Your task to perform on an android device: open app "Google Play services" Image 0: 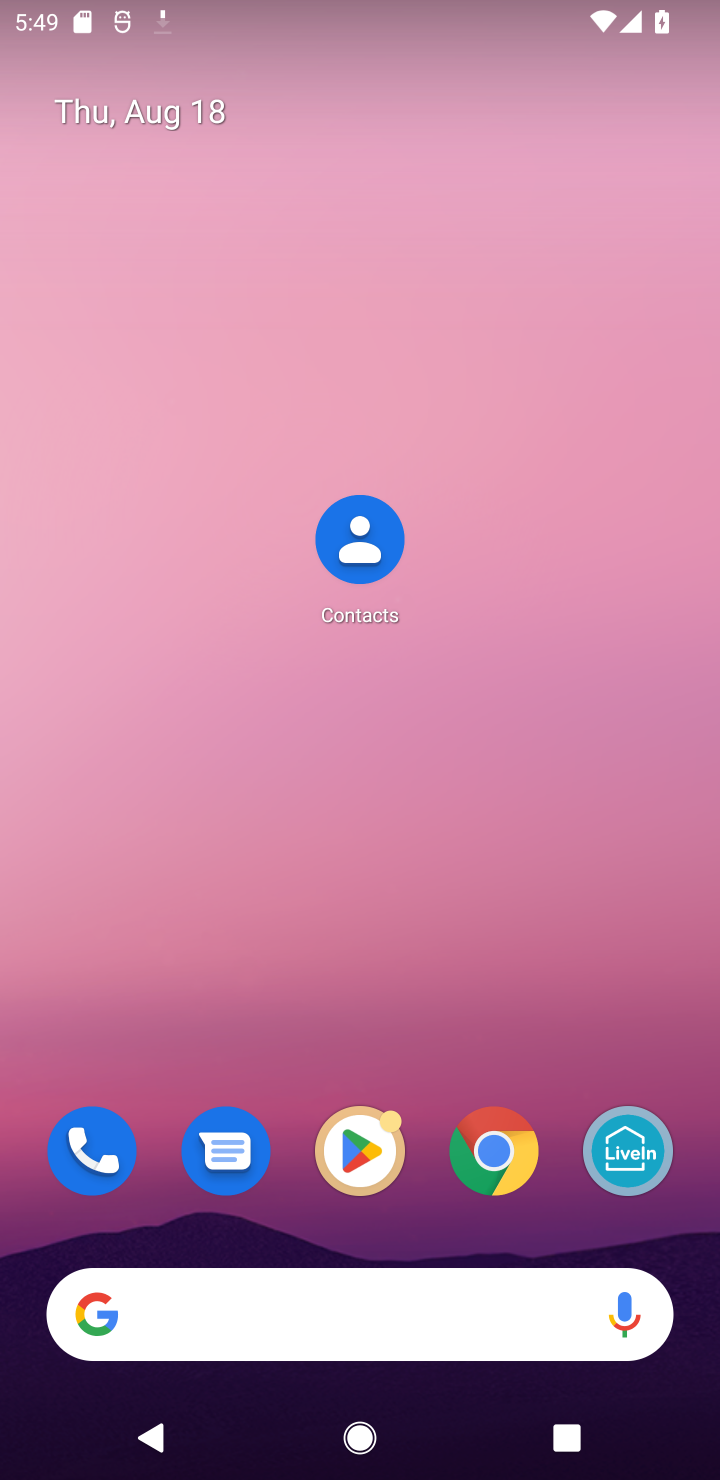
Step 0: click (373, 1170)
Your task to perform on an android device: open app "Google Play services" Image 1: 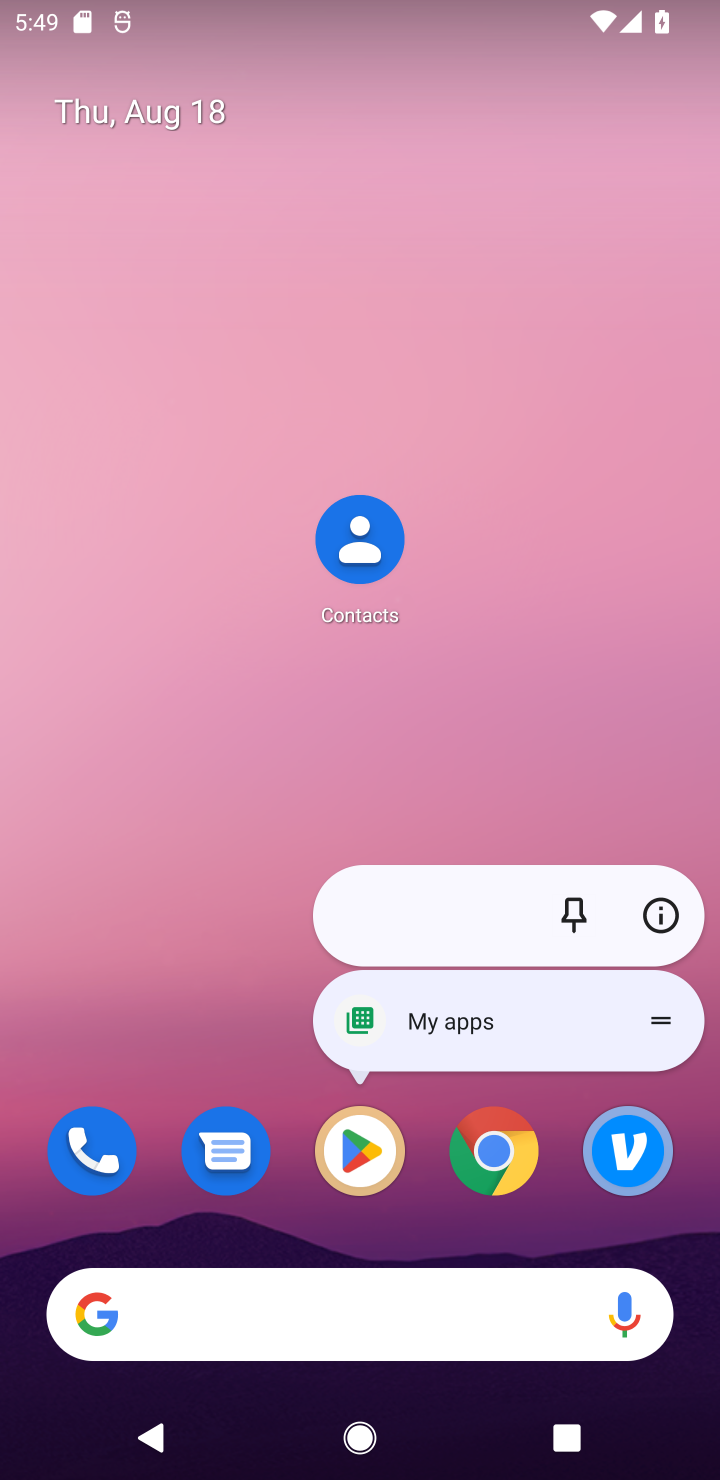
Step 1: click (342, 1180)
Your task to perform on an android device: open app "Google Play services" Image 2: 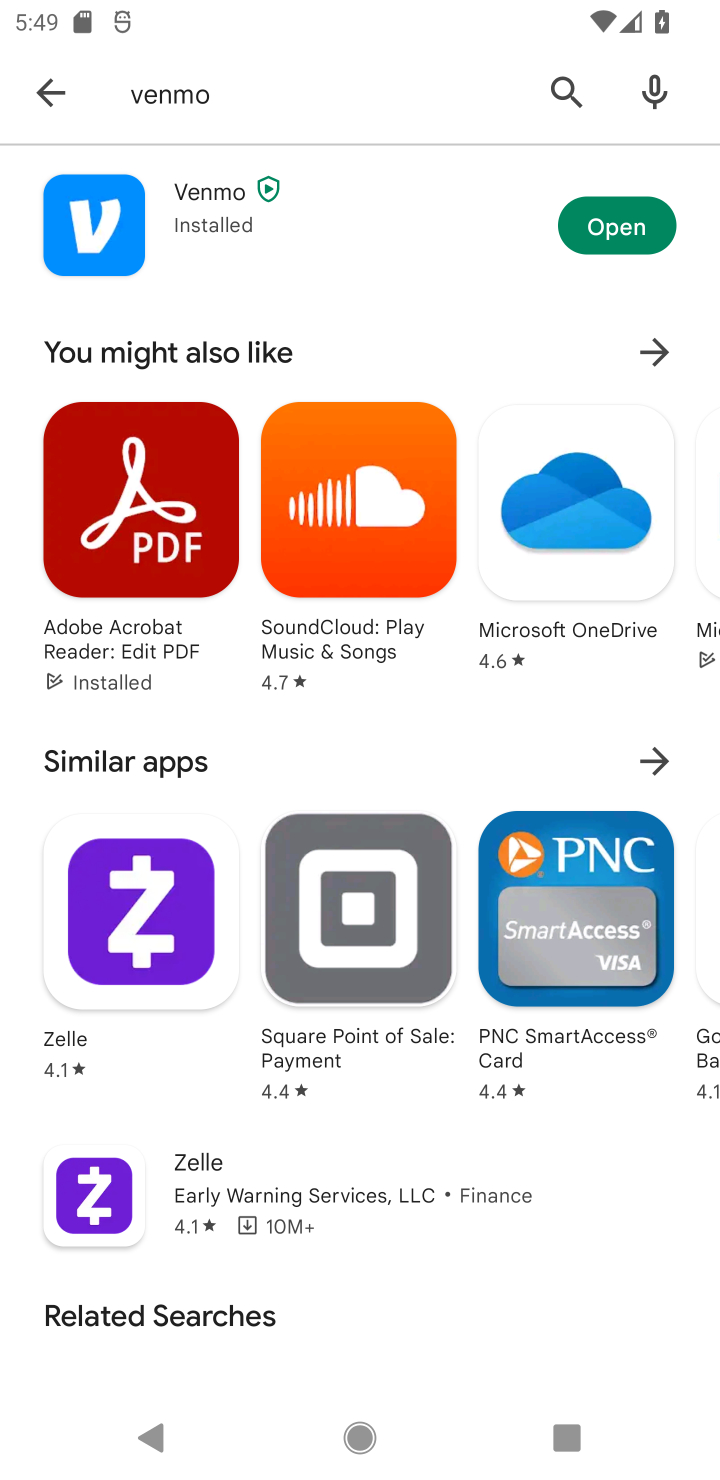
Step 2: click (582, 86)
Your task to perform on an android device: open app "Google Play services" Image 3: 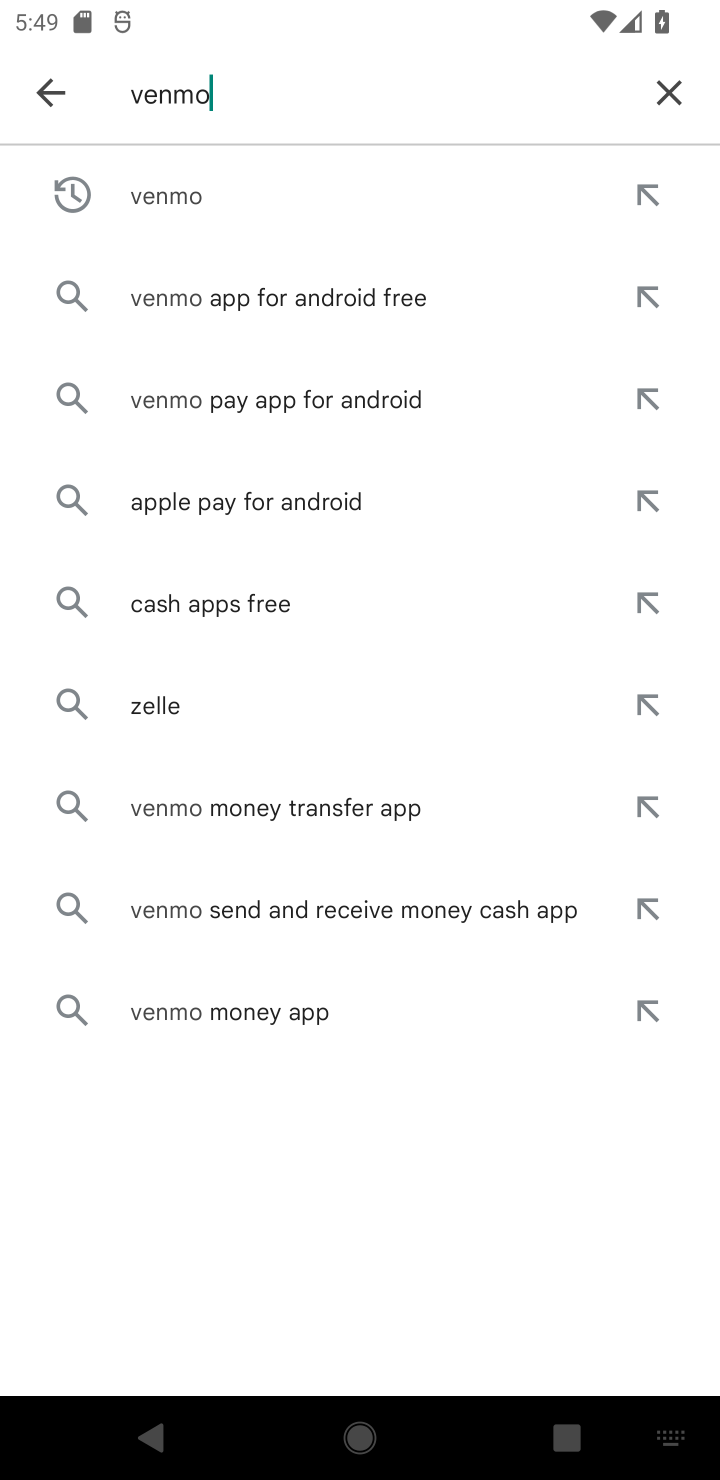
Step 3: click (671, 110)
Your task to perform on an android device: open app "Google Play services" Image 4: 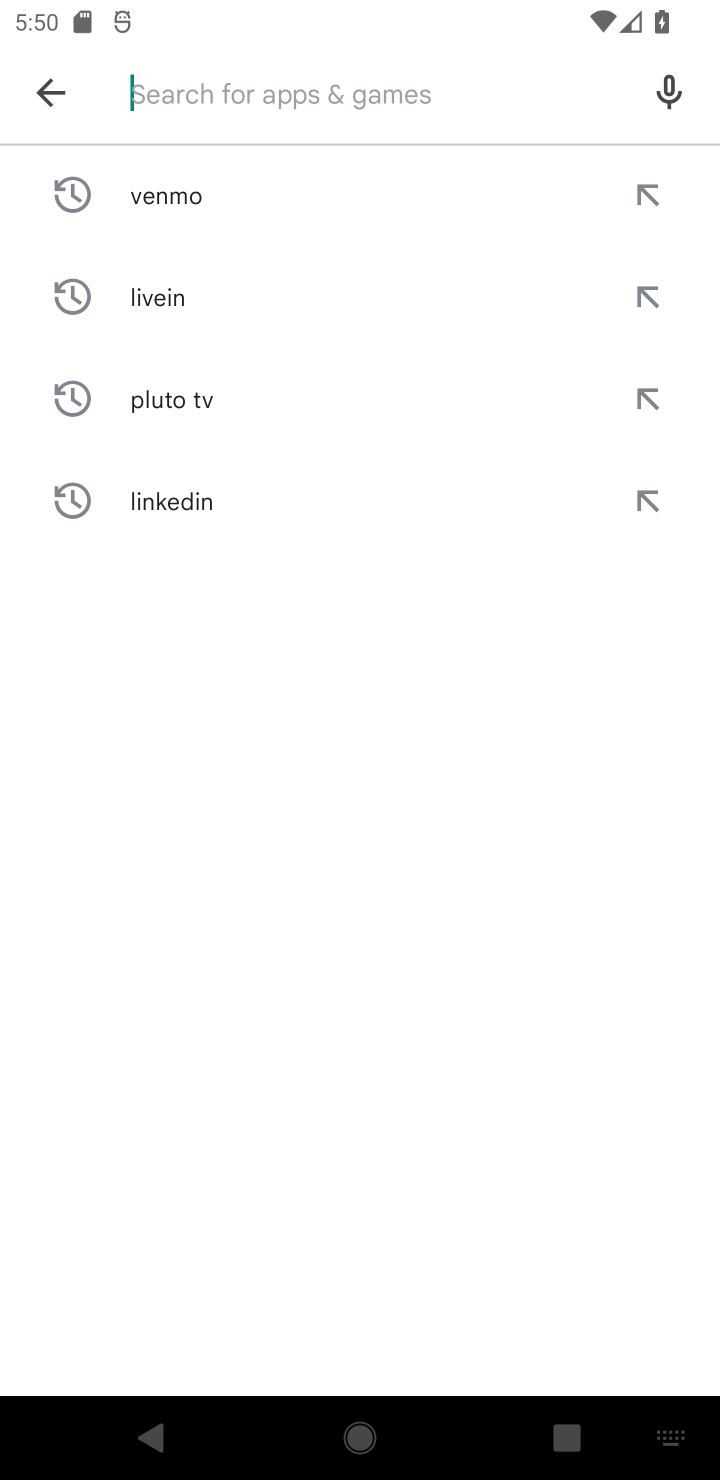
Step 4: type "google google play service"
Your task to perform on an android device: open app "Google Play services" Image 5: 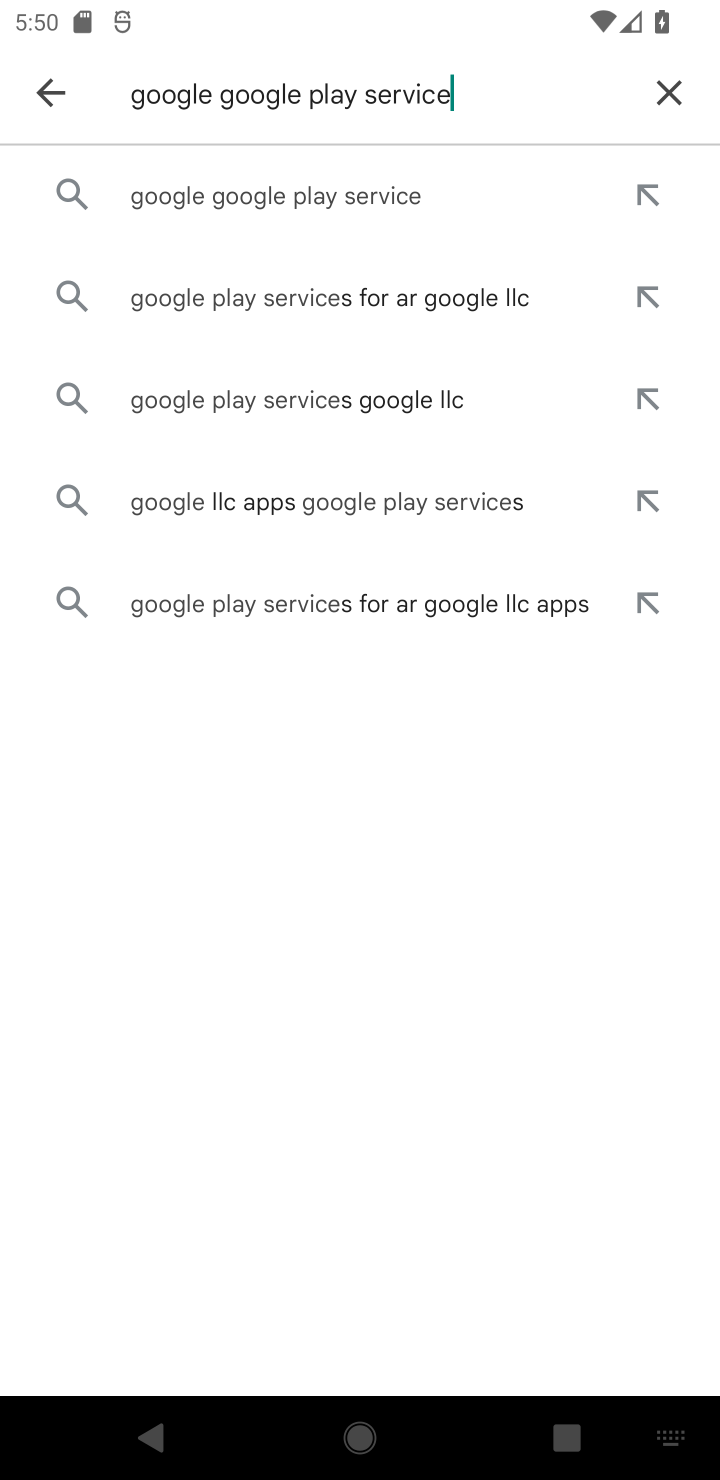
Step 5: click (272, 173)
Your task to perform on an android device: open app "Google Play services" Image 6: 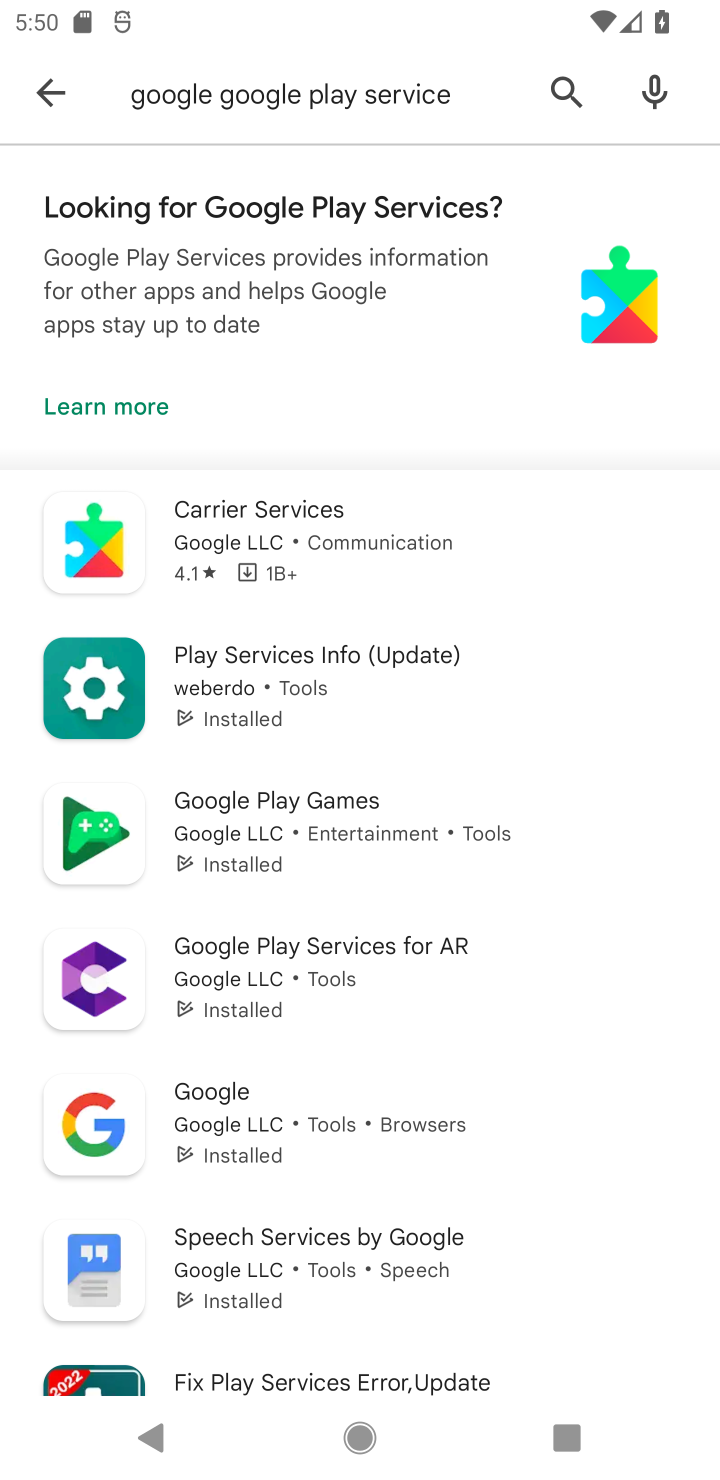
Step 6: click (358, 543)
Your task to perform on an android device: open app "Google Play services" Image 7: 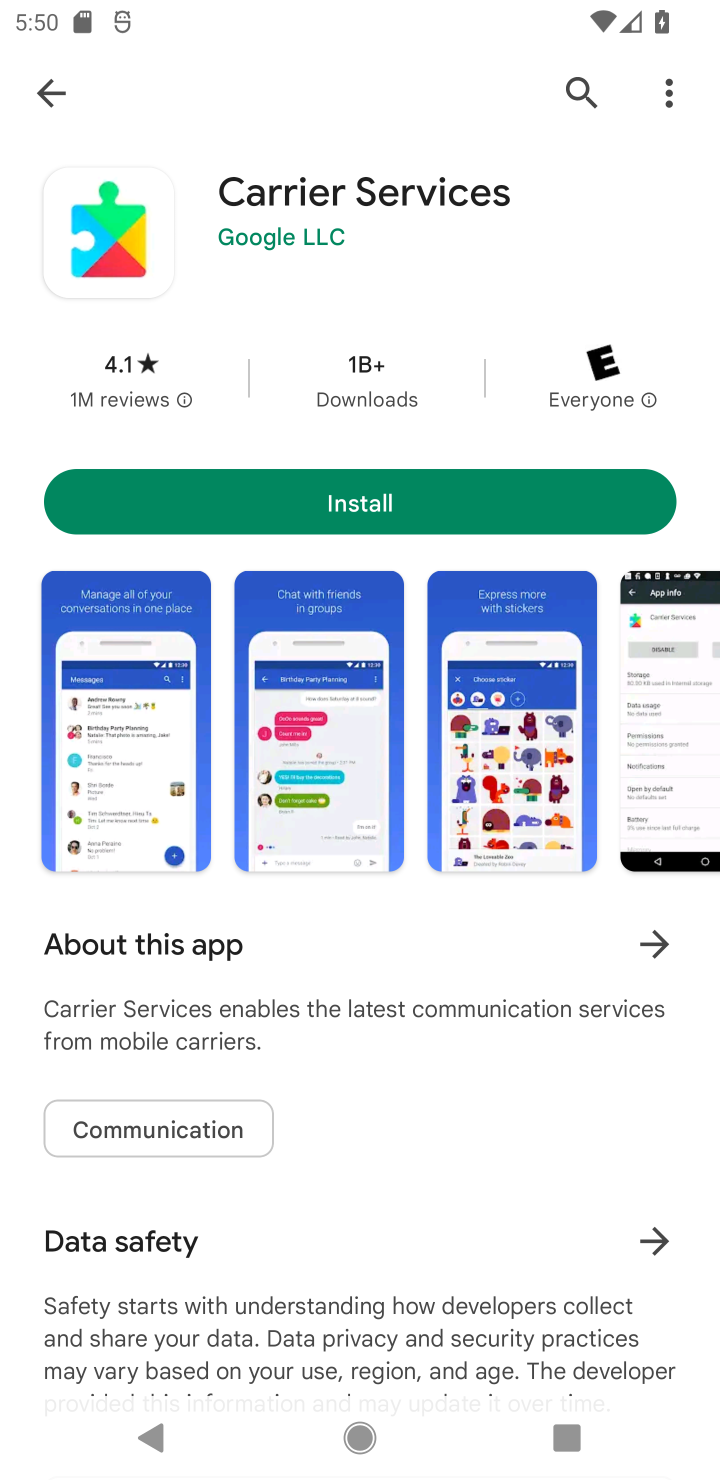
Step 7: click (534, 480)
Your task to perform on an android device: open app "Google Play services" Image 8: 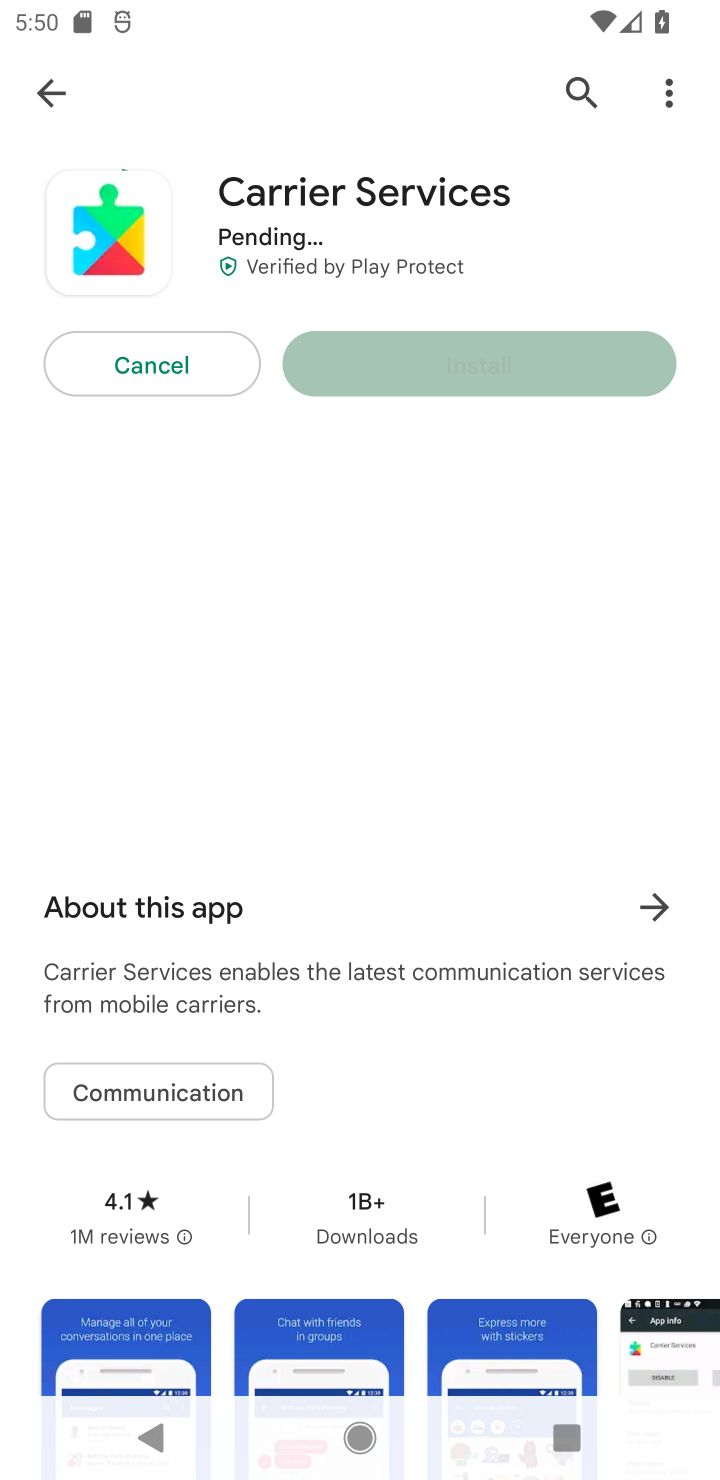
Step 8: task complete